Your task to perform on an android device: see sites visited before in the chrome app Image 0: 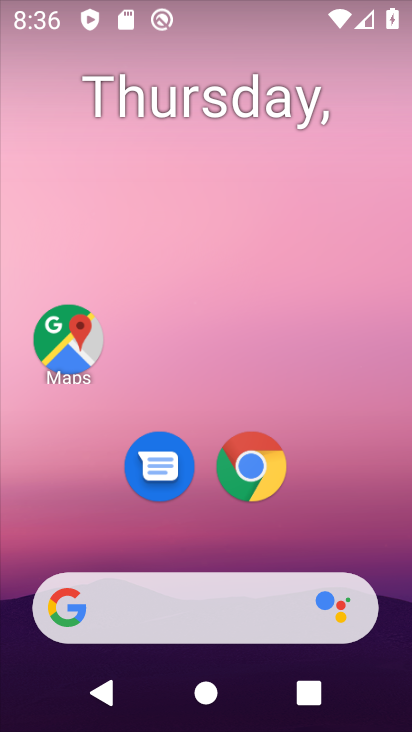
Step 0: press home button
Your task to perform on an android device: see sites visited before in the chrome app Image 1: 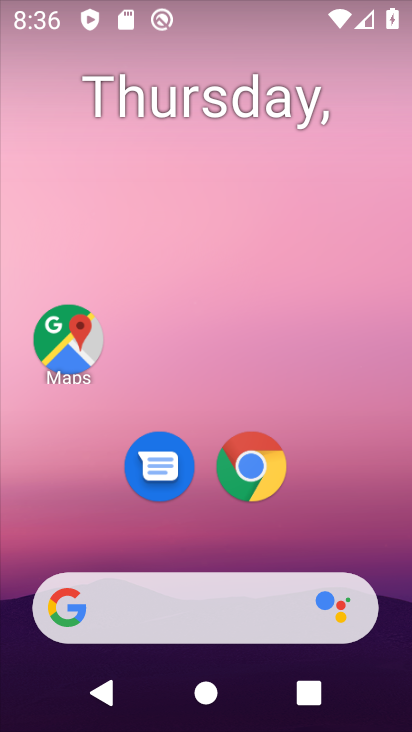
Step 1: click (265, 477)
Your task to perform on an android device: see sites visited before in the chrome app Image 2: 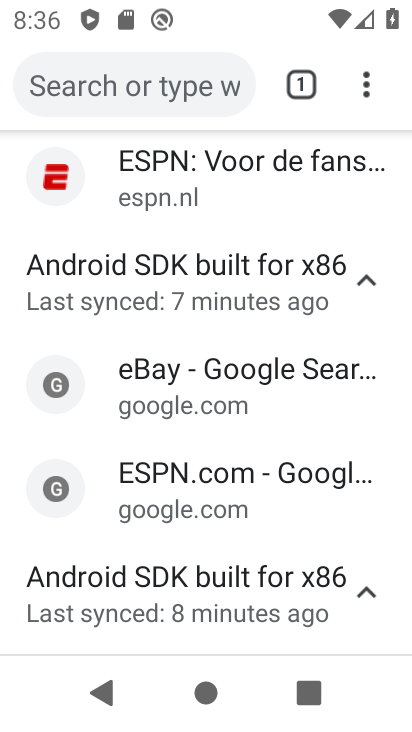
Step 2: task complete